Your task to perform on an android device: star an email in the gmail app Image 0: 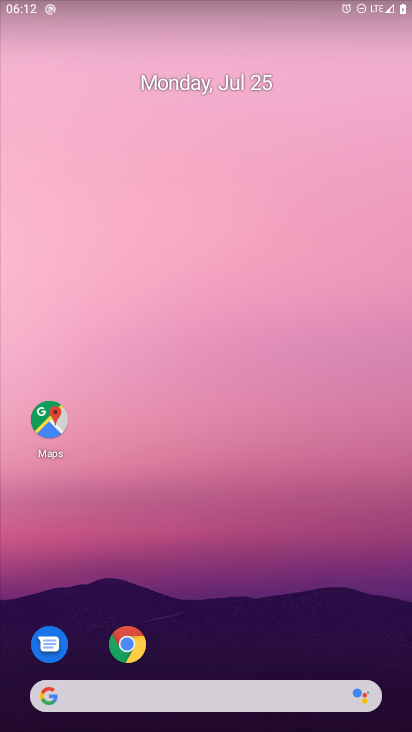
Step 0: press home button
Your task to perform on an android device: star an email in the gmail app Image 1: 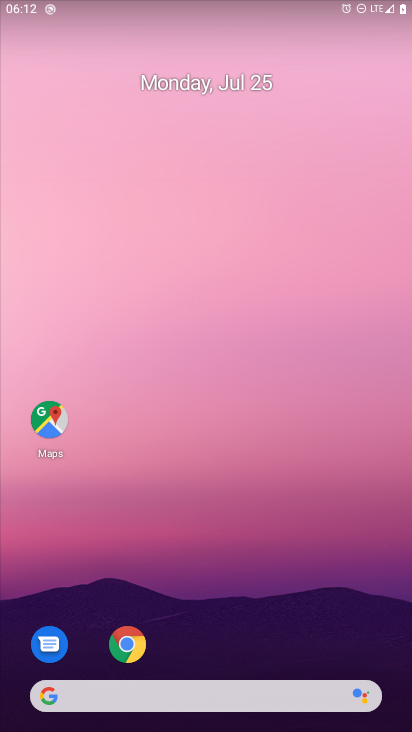
Step 1: drag from (230, 647) to (138, 180)
Your task to perform on an android device: star an email in the gmail app Image 2: 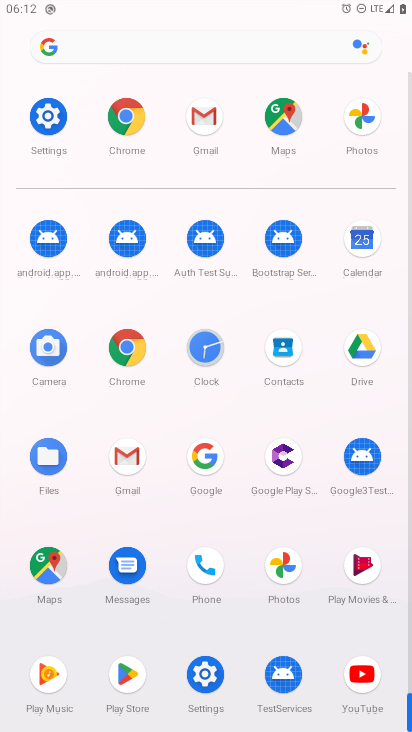
Step 2: click (210, 123)
Your task to perform on an android device: star an email in the gmail app Image 3: 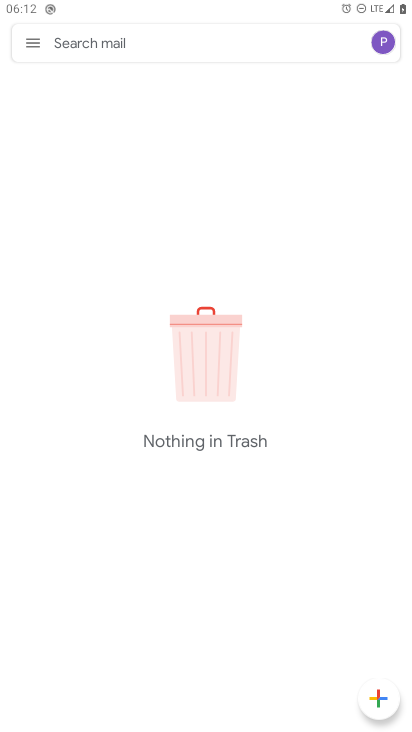
Step 3: click (33, 42)
Your task to perform on an android device: star an email in the gmail app Image 4: 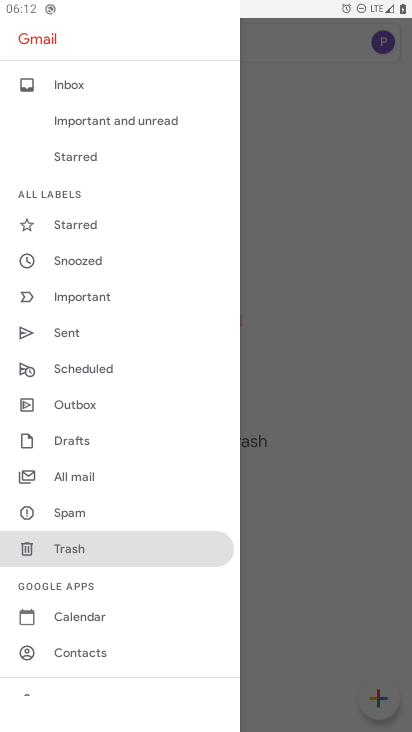
Step 4: click (87, 479)
Your task to perform on an android device: star an email in the gmail app Image 5: 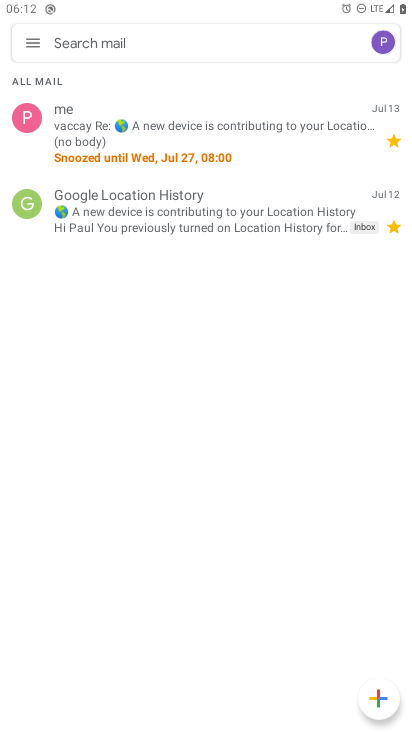
Step 5: click (216, 129)
Your task to perform on an android device: star an email in the gmail app Image 6: 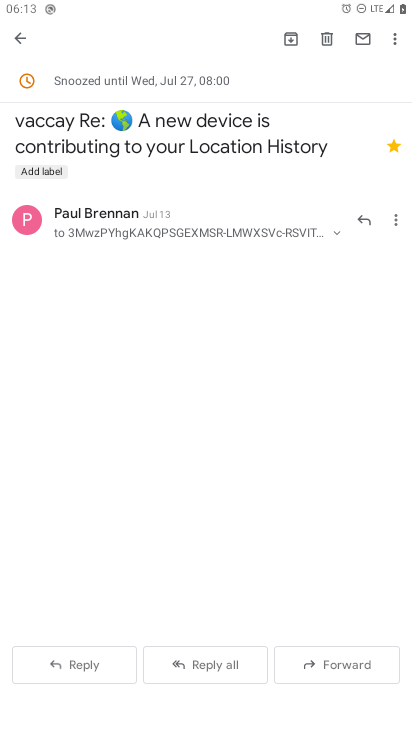
Step 6: task complete